Your task to perform on an android device: uninstall "HBO Max: Stream TV & Movies" Image 0: 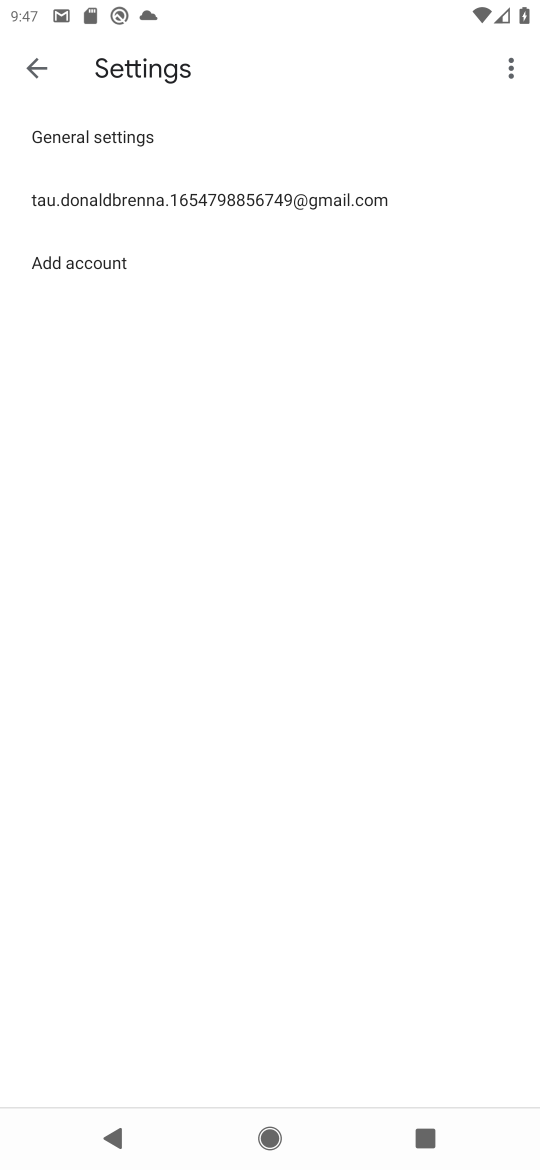
Step 0: press home button
Your task to perform on an android device: uninstall "HBO Max: Stream TV & Movies" Image 1: 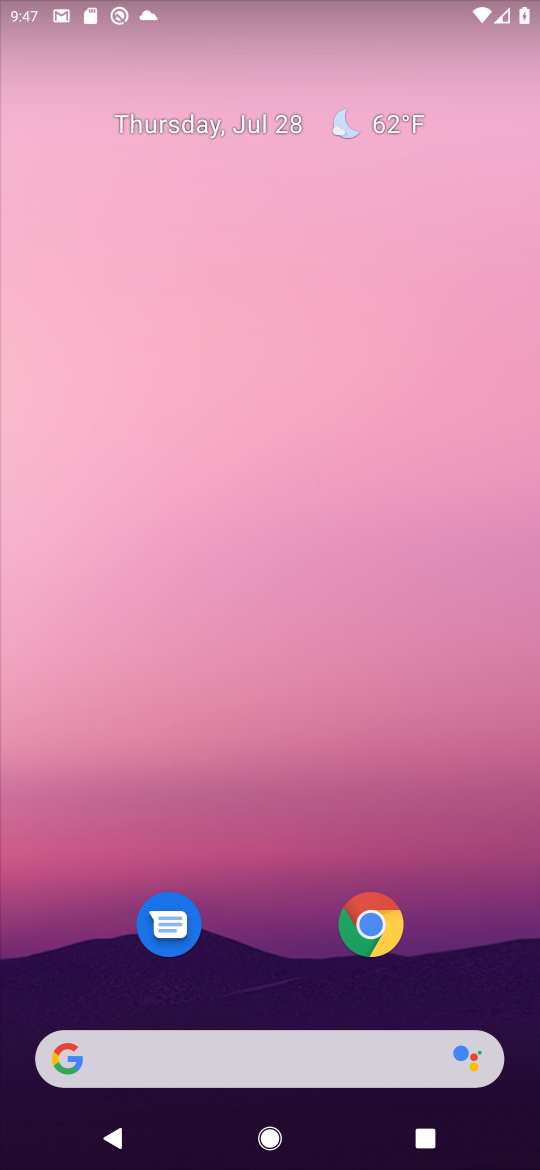
Step 1: drag from (272, 1074) to (172, 24)
Your task to perform on an android device: uninstall "HBO Max: Stream TV & Movies" Image 2: 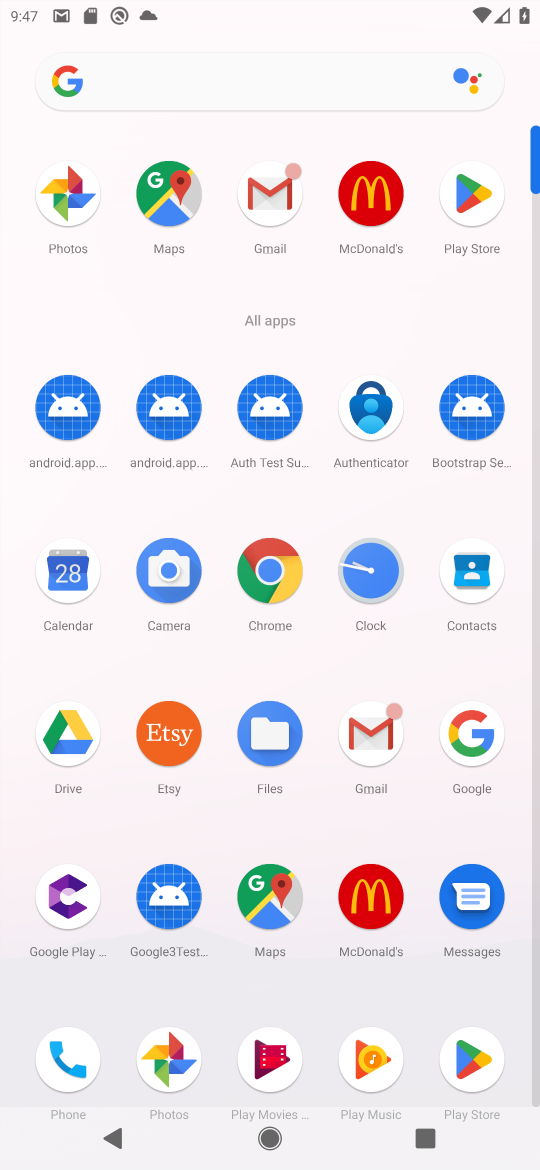
Step 2: click (470, 1050)
Your task to perform on an android device: uninstall "HBO Max: Stream TV & Movies" Image 3: 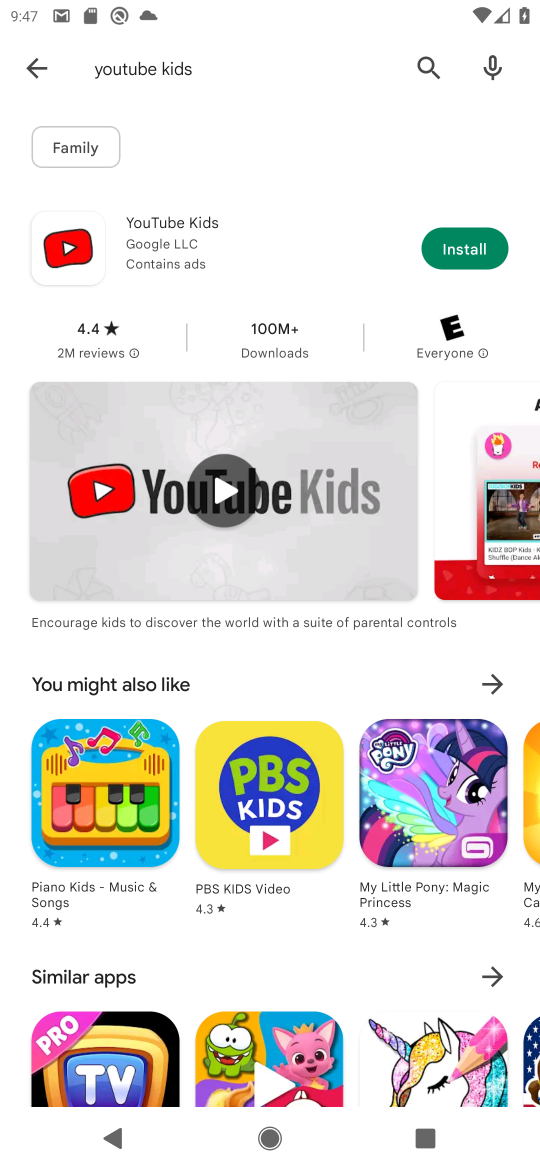
Step 3: click (439, 64)
Your task to perform on an android device: uninstall "HBO Max: Stream TV & Movies" Image 4: 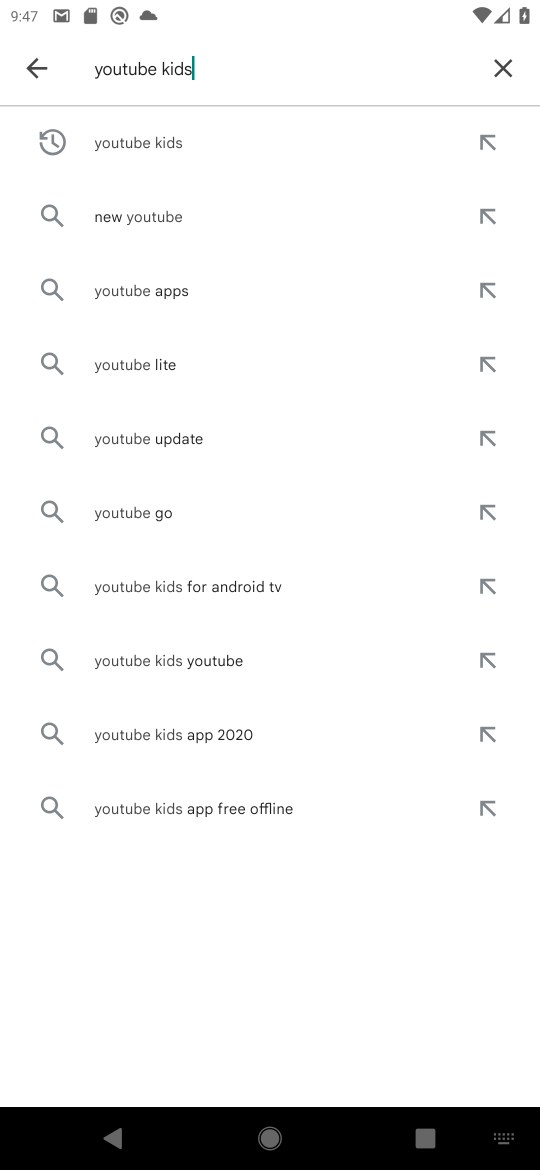
Step 4: click (503, 63)
Your task to perform on an android device: uninstall "HBO Max: Stream TV & Movies" Image 5: 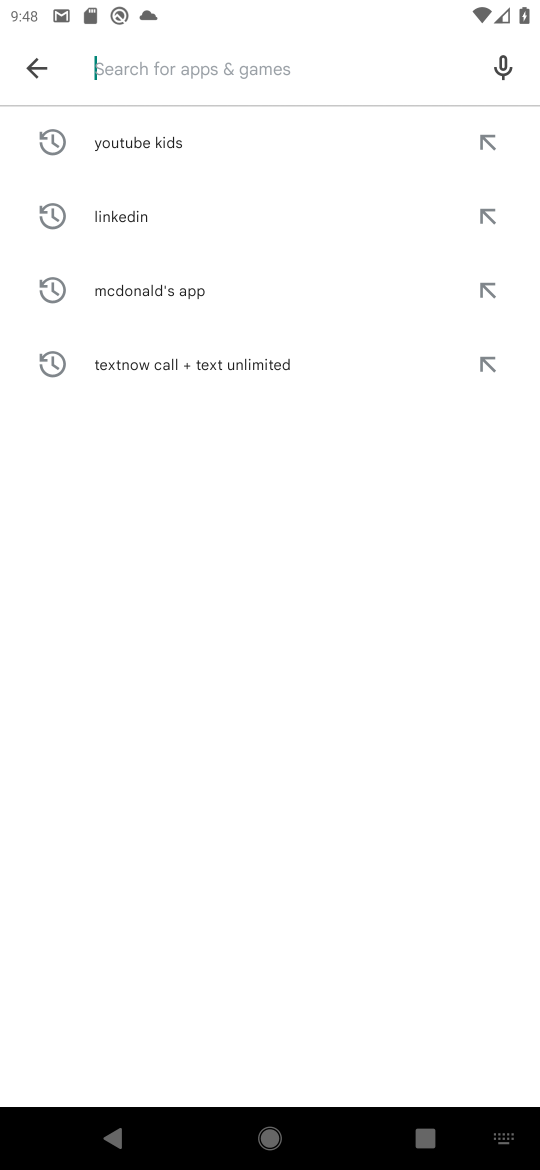
Step 5: type "HBO Max: Stream TV & Movies"
Your task to perform on an android device: uninstall "HBO Max: Stream TV & Movies" Image 6: 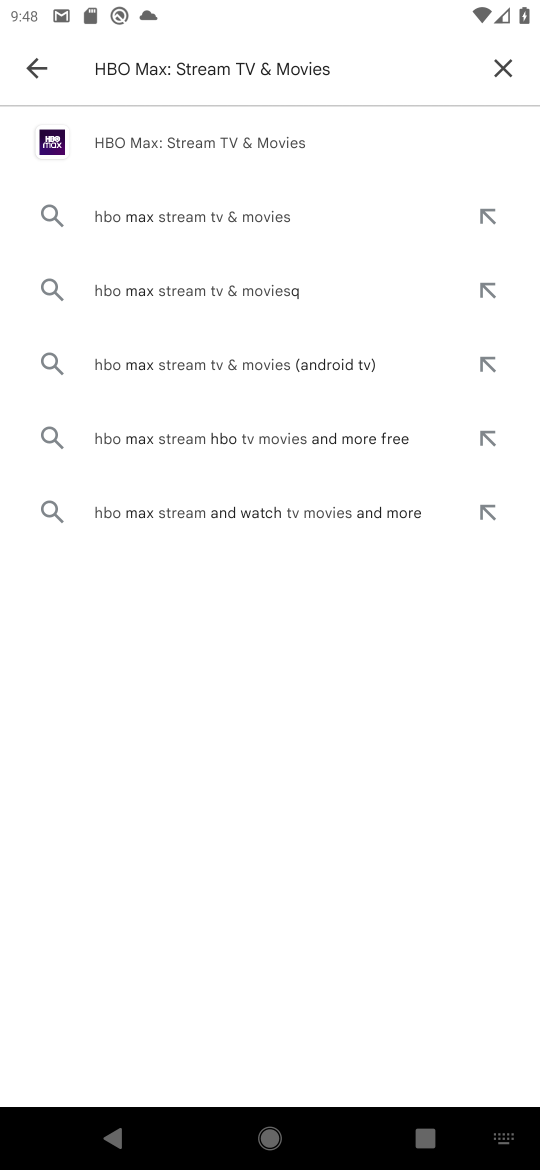
Step 6: click (103, 143)
Your task to perform on an android device: uninstall "HBO Max: Stream TV & Movies" Image 7: 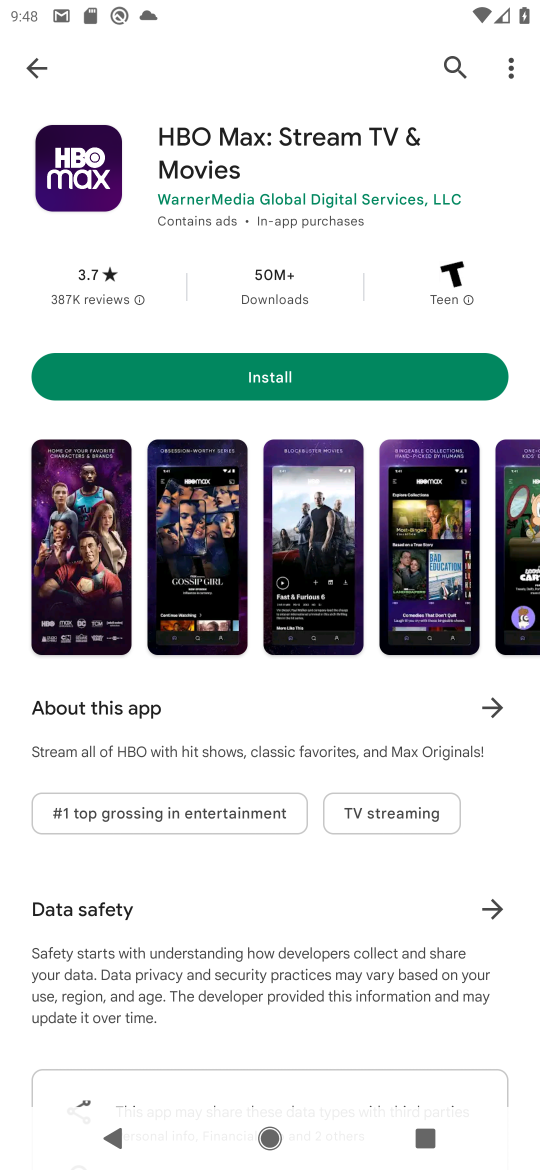
Step 7: task complete